Your task to perform on an android device: Go to eBay Image 0: 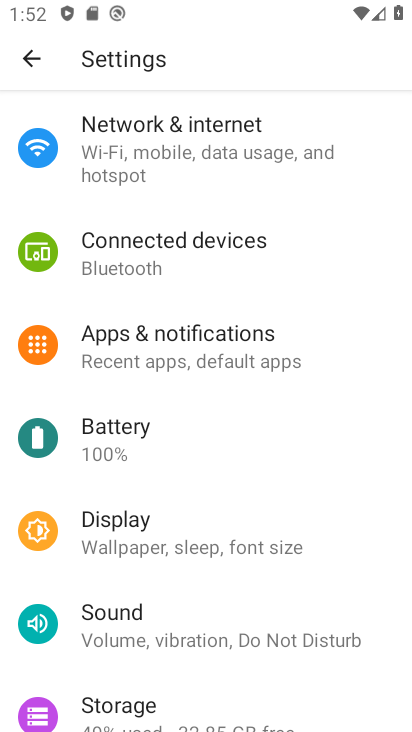
Step 0: press home button
Your task to perform on an android device: Go to eBay Image 1: 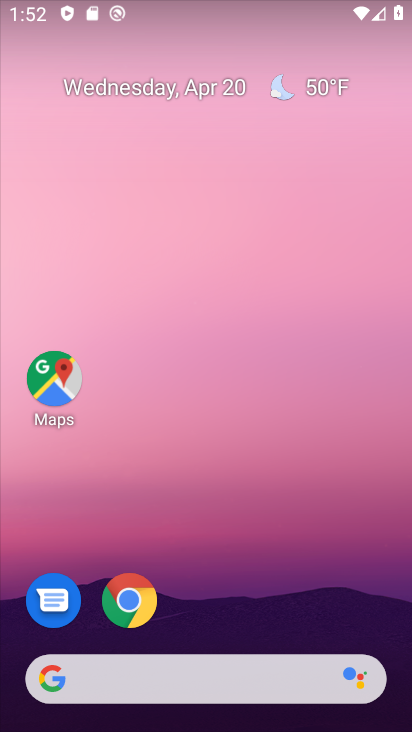
Step 1: click (134, 591)
Your task to perform on an android device: Go to eBay Image 2: 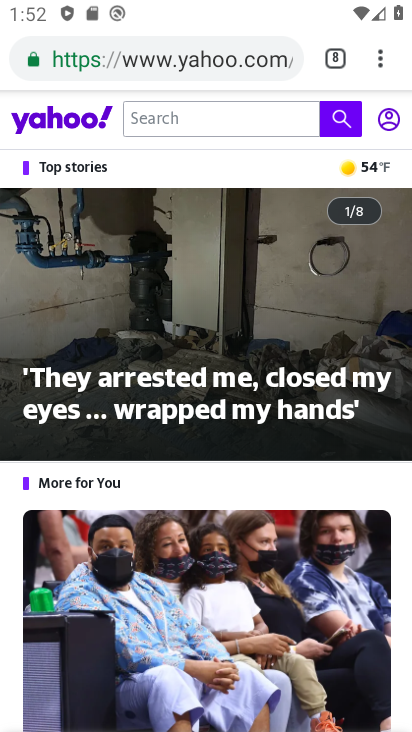
Step 2: click (329, 59)
Your task to perform on an android device: Go to eBay Image 3: 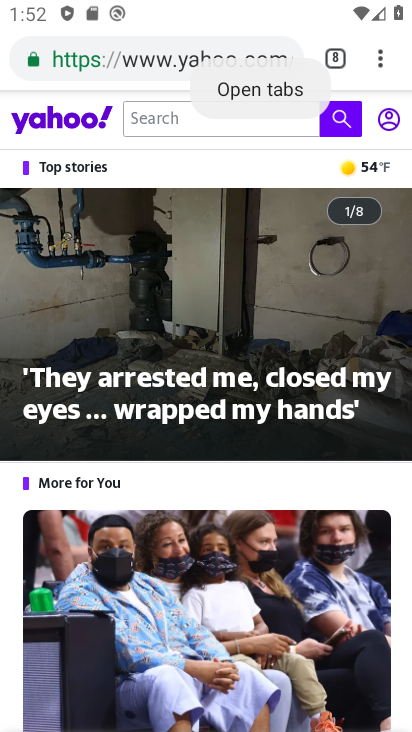
Step 3: click (337, 51)
Your task to perform on an android device: Go to eBay Image 4: 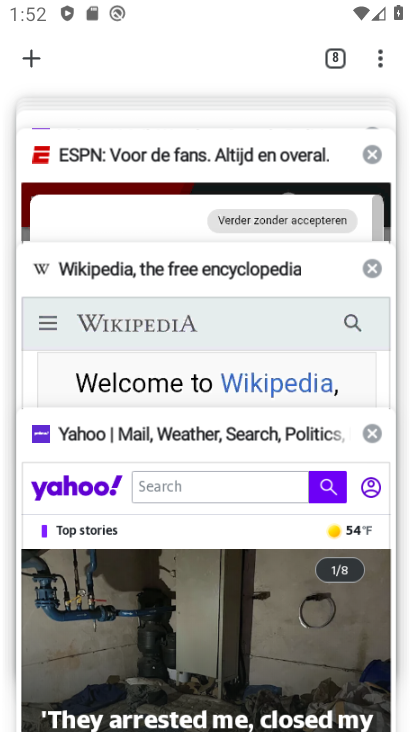
Step 4: click (21, 59)
Your task to perform on an android device: Go to eBay Image 5: 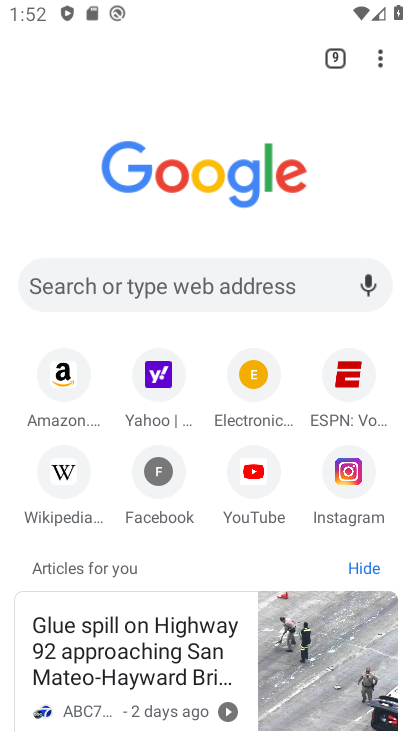
Step 5: click (162, 279)
Your task to perform on an android device: Go to eBay Image 6: 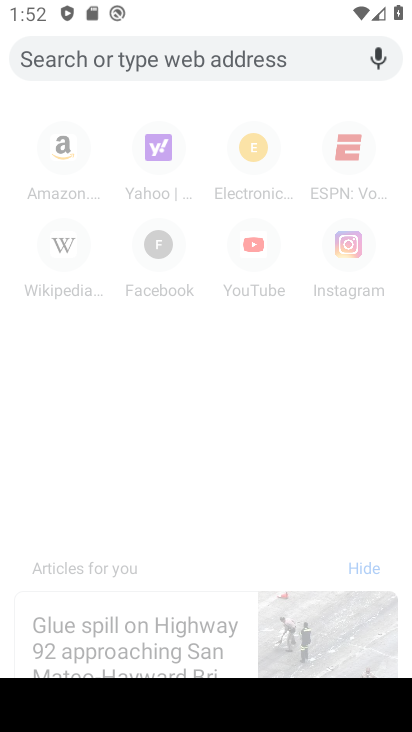
Step 6: type "ebay"
Your task to perform on an android device: Go to eBay Image 7: 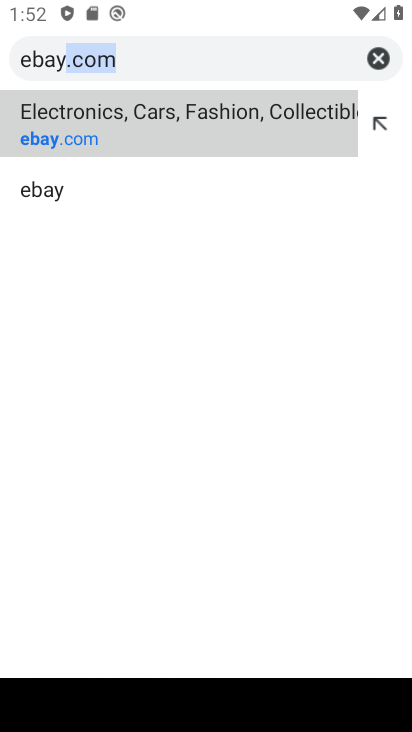
Step 7: click (146, 94)
Your task to perform on an android device: Go to eBay Image 8: 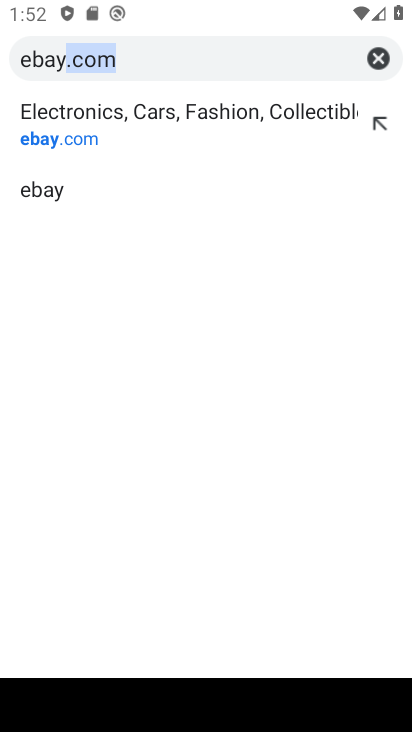
Step 8: click (98, 132)
Your task to perform on an android device: Go to eBay Image 9: 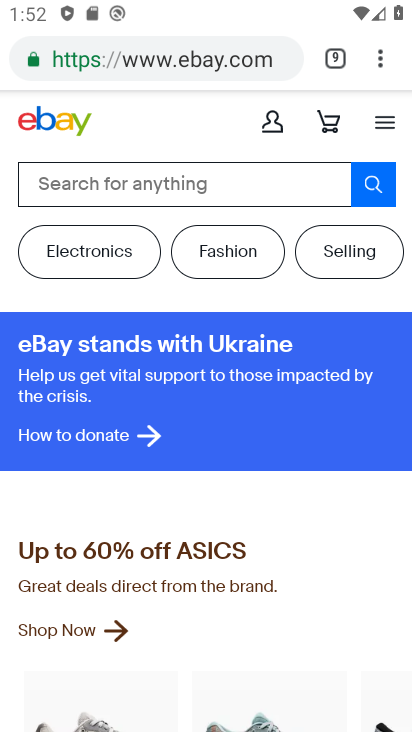
Step 9: task complete